Your task to perform on an android device: What's the weather going to be tomorrow? Image 0: 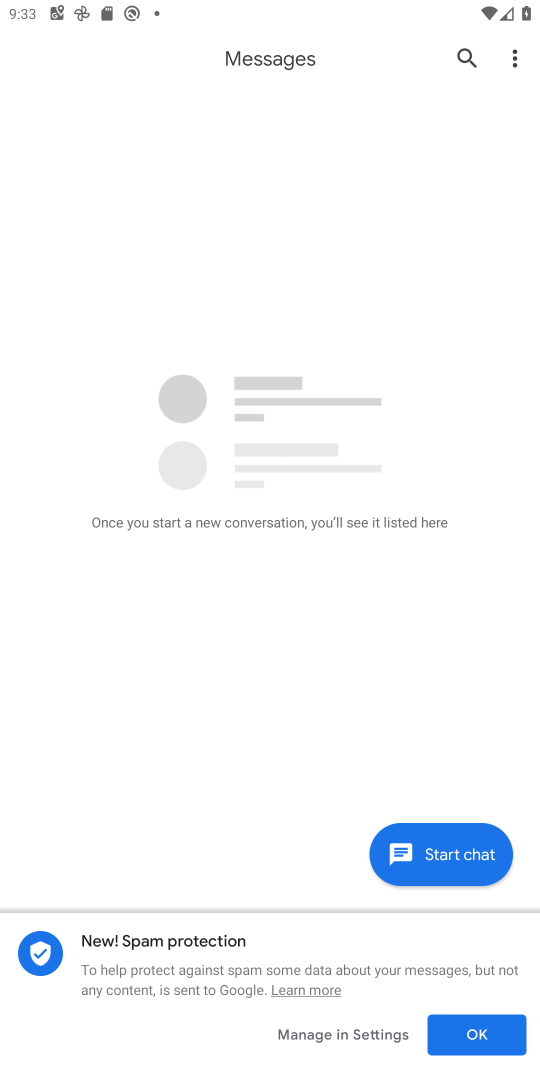
Step 0: press home button
Your task to perform on an android device: What's the weather going to be tomorrow? Image 1: 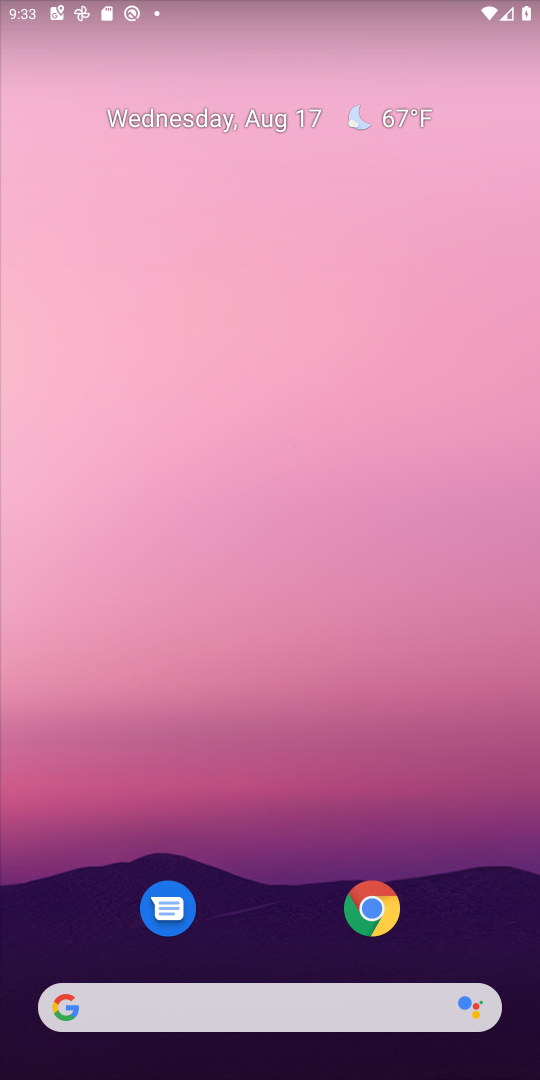
Step 1: drag from (244, 885) to (291, 75)
Your task to perform on an android device: What's the weather going to be tomorrow? Image 2: 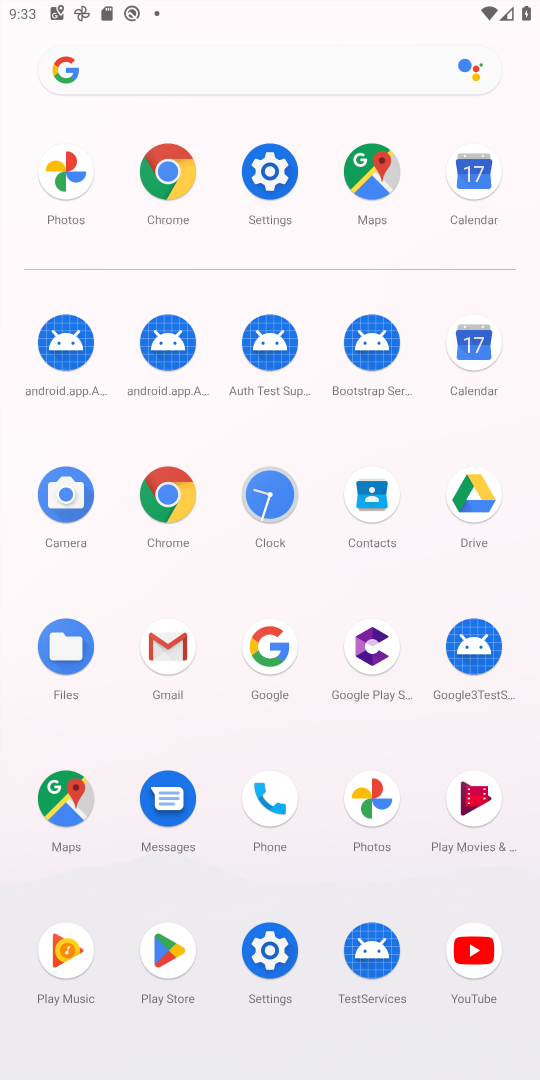
Step 2: click (165, 489)
Your task to perform on an android device: What's the weather going to be tomorrow? Image 3: 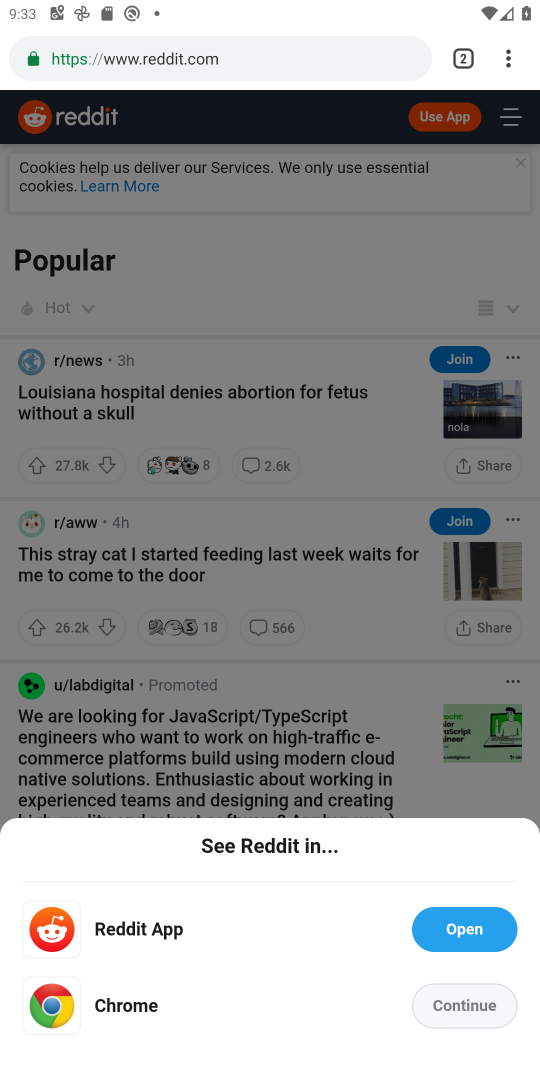
Step 3: click (174, 45)
Your task to perform on an android device: What's the weather going to be tomorrow? Image 4: 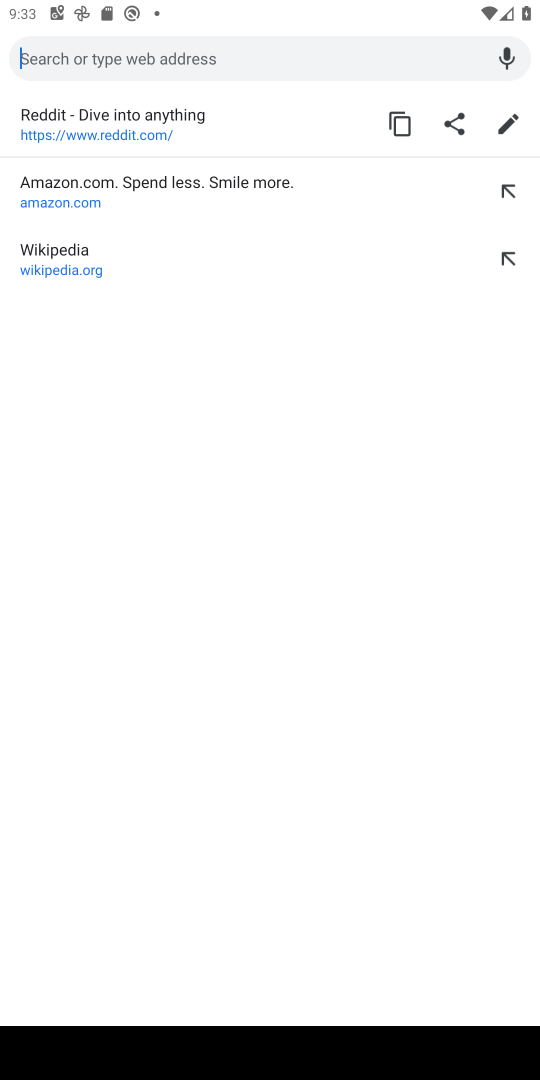
Step 4: type "What's the weather going to be tomorrow?"
Your task to perform on an android device: What's the weather going to be tomorrow? Image 5: 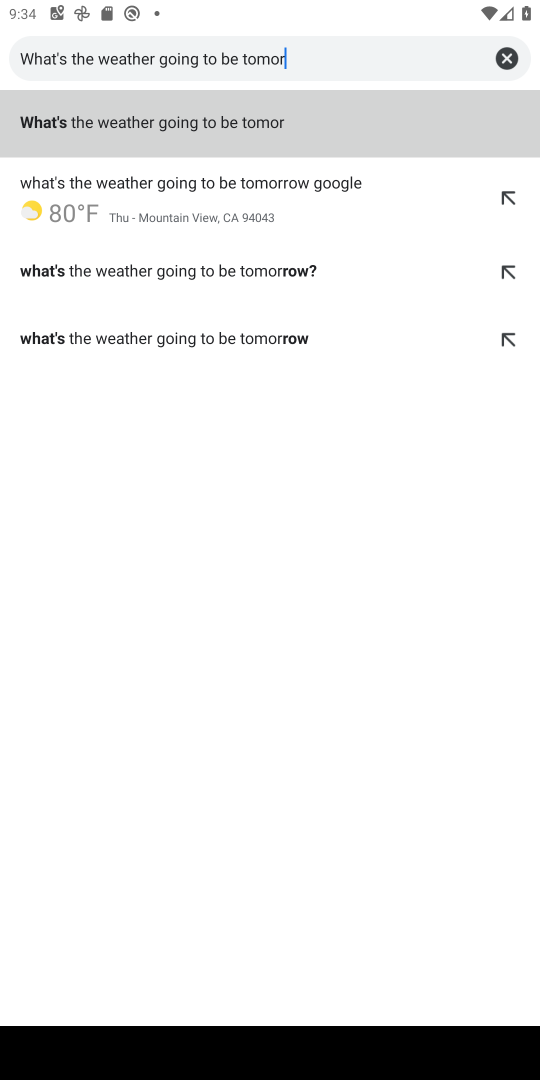
Step 5: click (149, 119)
Your task to perform on an android device: What's the weather going to be tomorrow? Image 6: 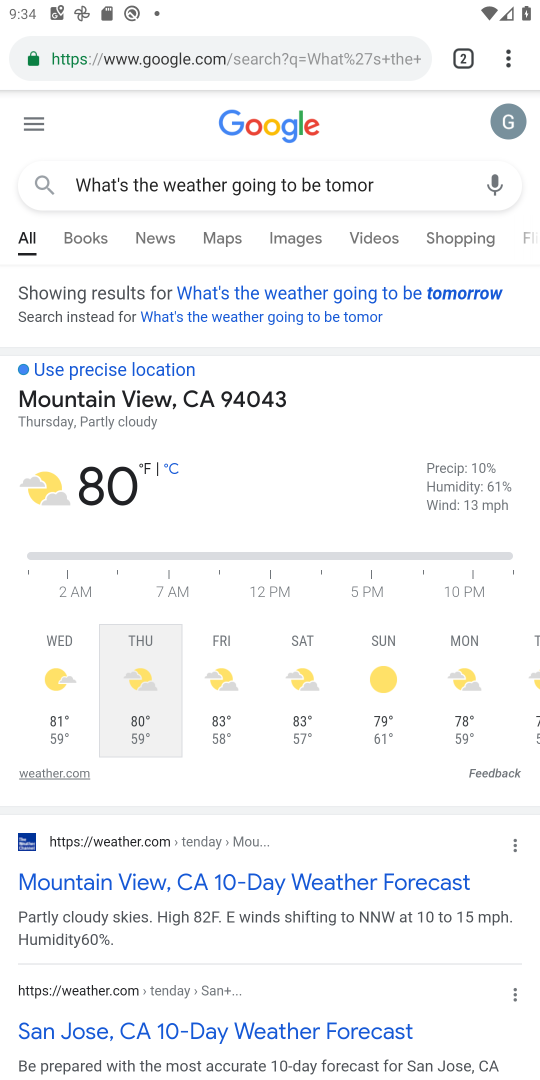
Step 6: task complete